Your task to perform on an android device: set an alarm Image 0: 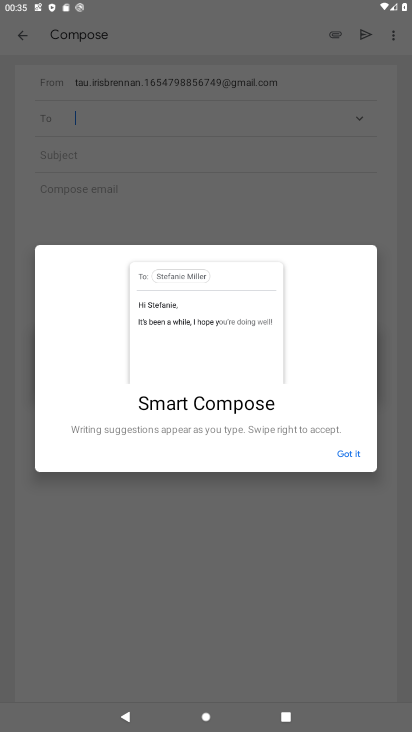
Step 0: press home button
Your task to perform on an android device: set an alarm Image 1: 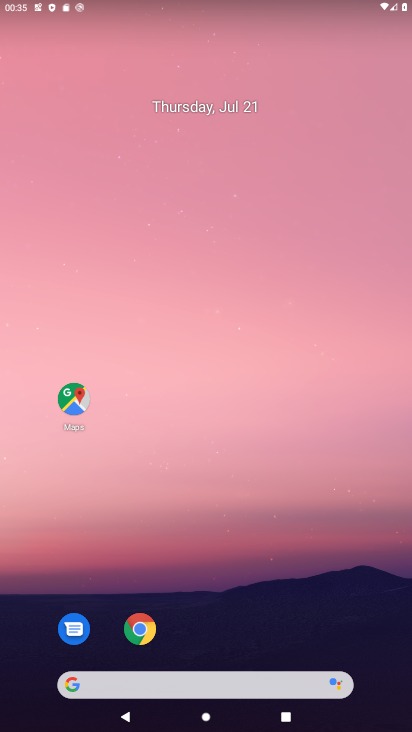
Step 1: drag from (300, 641) to (252, 142)
Your task to perform on an android device: set an alarm Image 2: 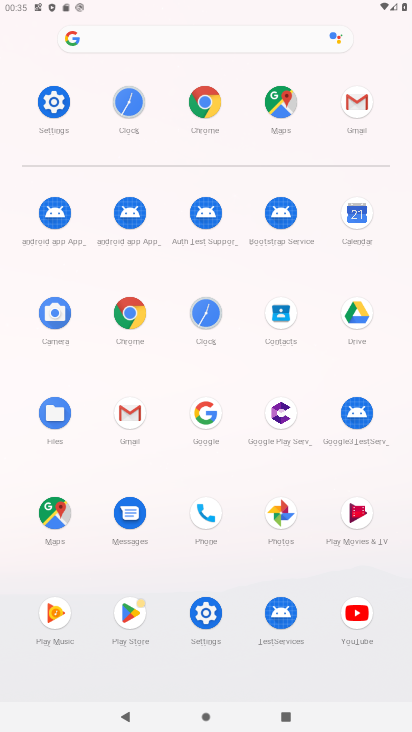
Step 2: click (202, 309)
Your task to perform on an android device: set an alarm Image 3: 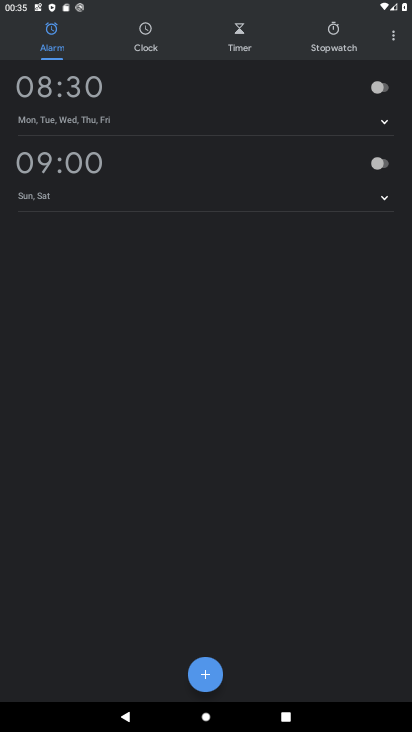
Step 3: click (207, 674)
Your task to perform on an android device: set an alarm Image 4: 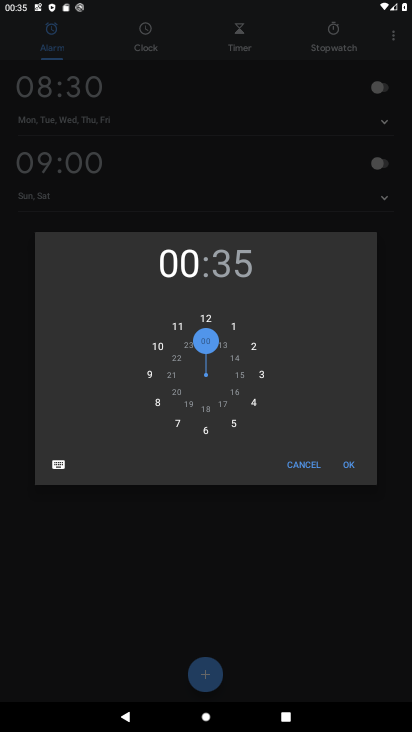
Step 4: click (359, 460)
Your task to perform on an android device: set an alarm Image 5: 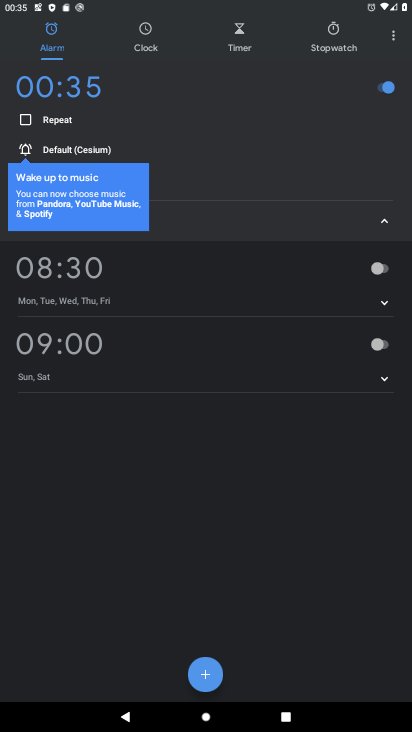
Step 5: task complete